Your task to perform on an android device: Open the Play Movies app and select the watchlist tab. Image 0: 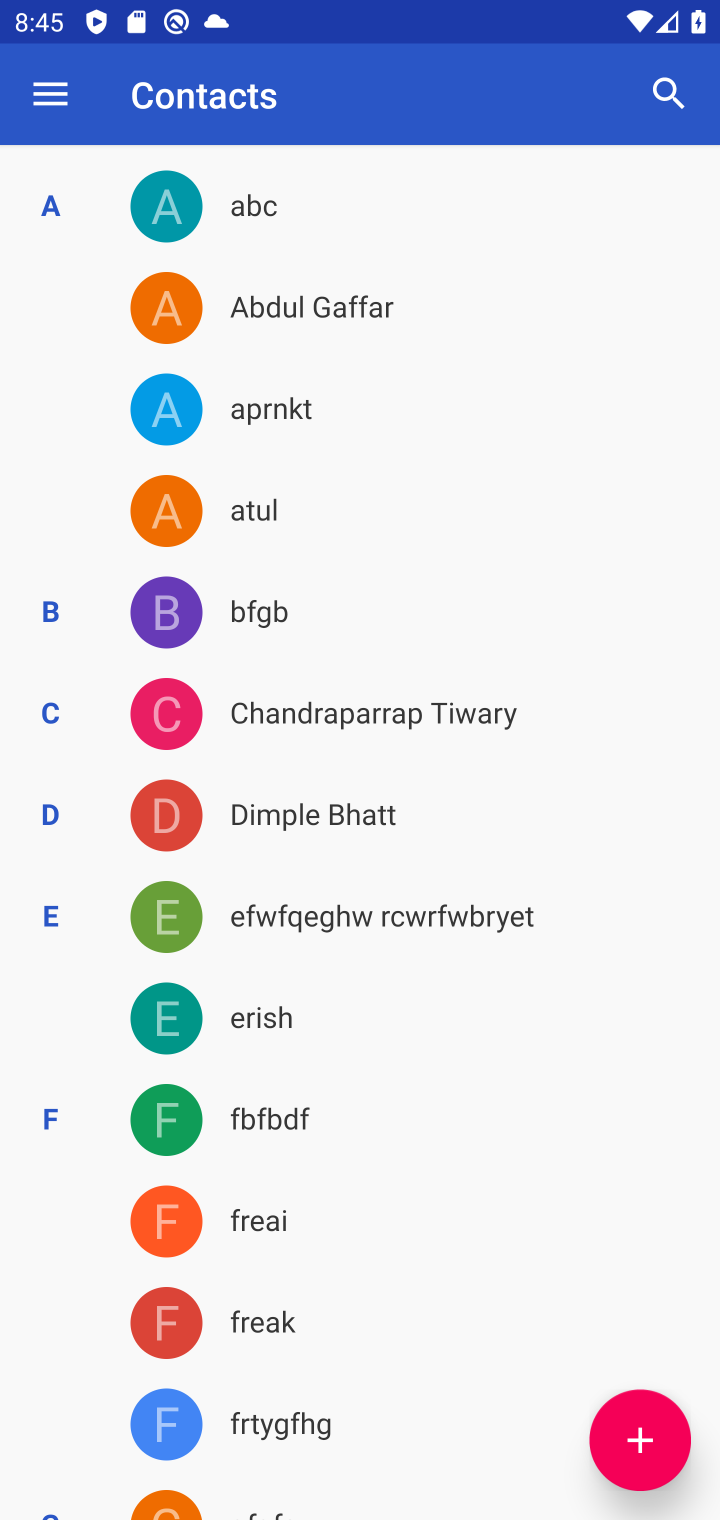
Step 0: press home button
Your task to perform on an android device: Open the Play Movies app and select the watchlist tab. Image 1: 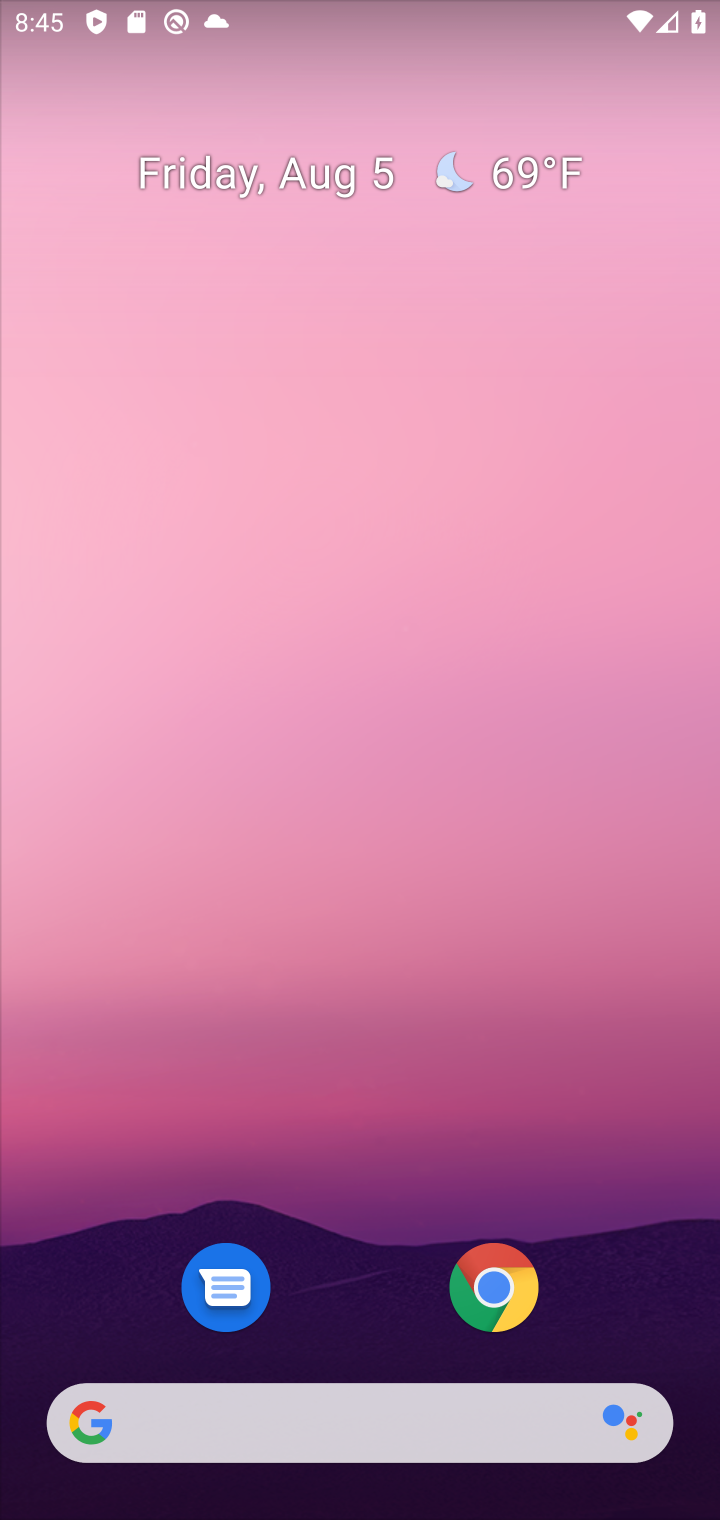
Step 1: drag from (331, 1344) to (260, 61)
Your task to perform on an android device: Open the Play Movies app and select the watchlist tab. Image 2: 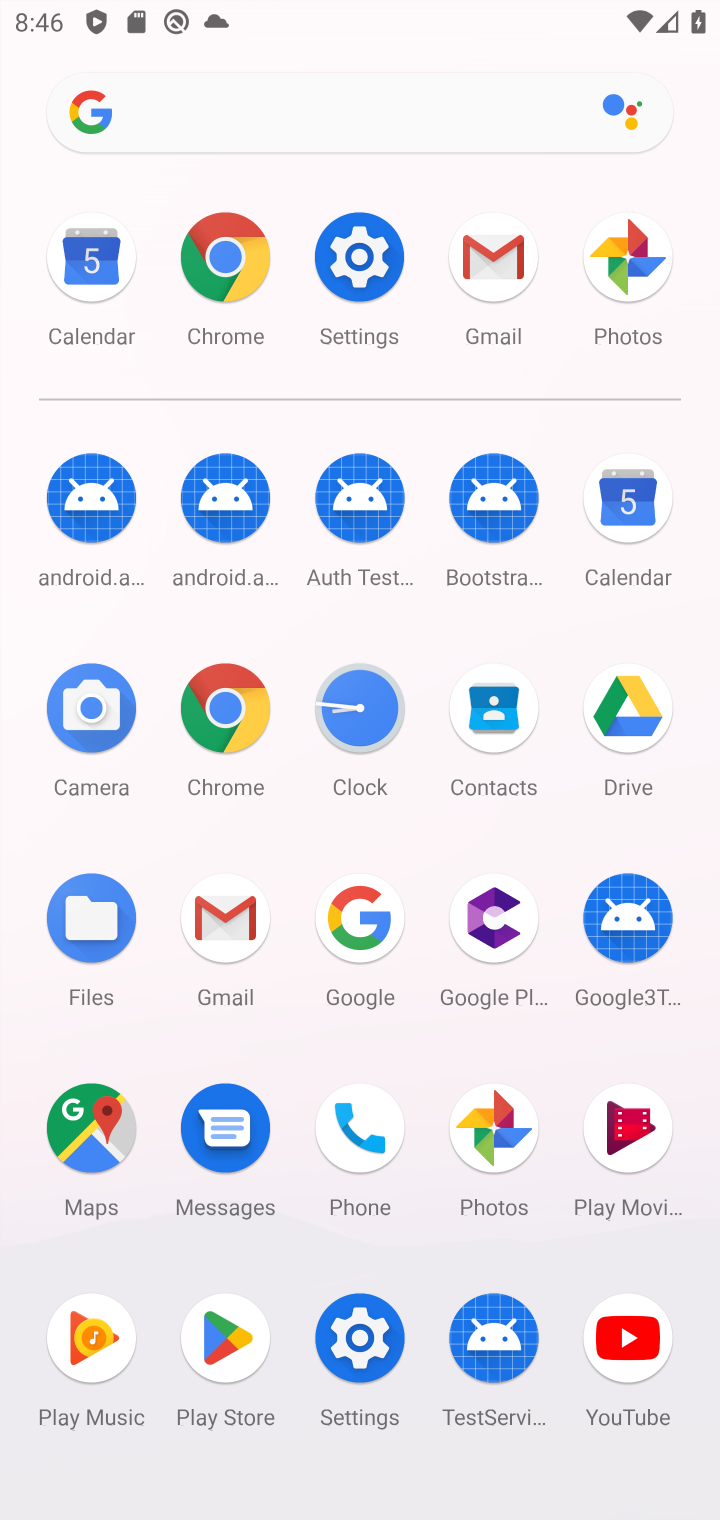
Step 2: click (624, 1132)
Your task to perform on an android device: Open the Play Movies app and select the watchlist tab. Image 3: 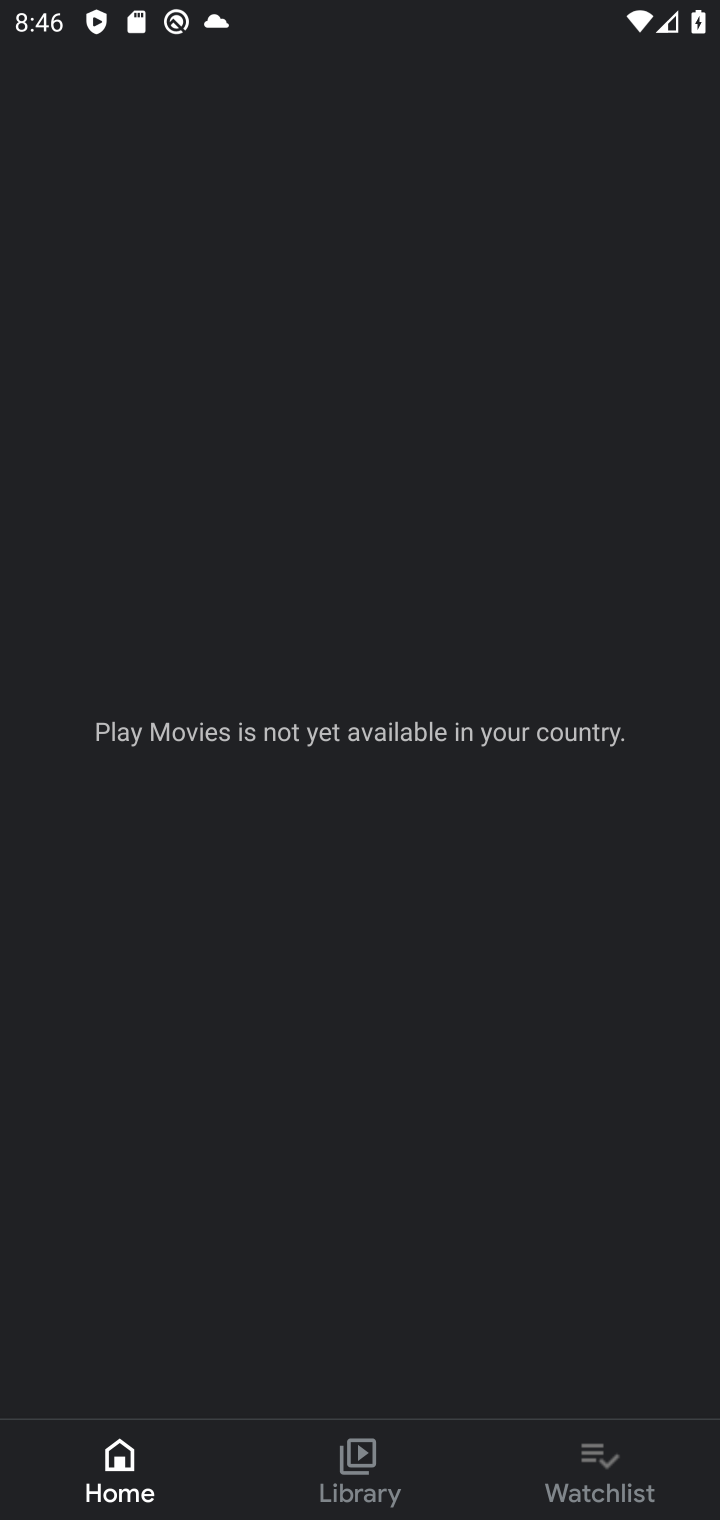
Step 3: click (597, 1482)
Your task to perform on an android device: Open the Play Movies app and select the watchlist tab. Image 4: 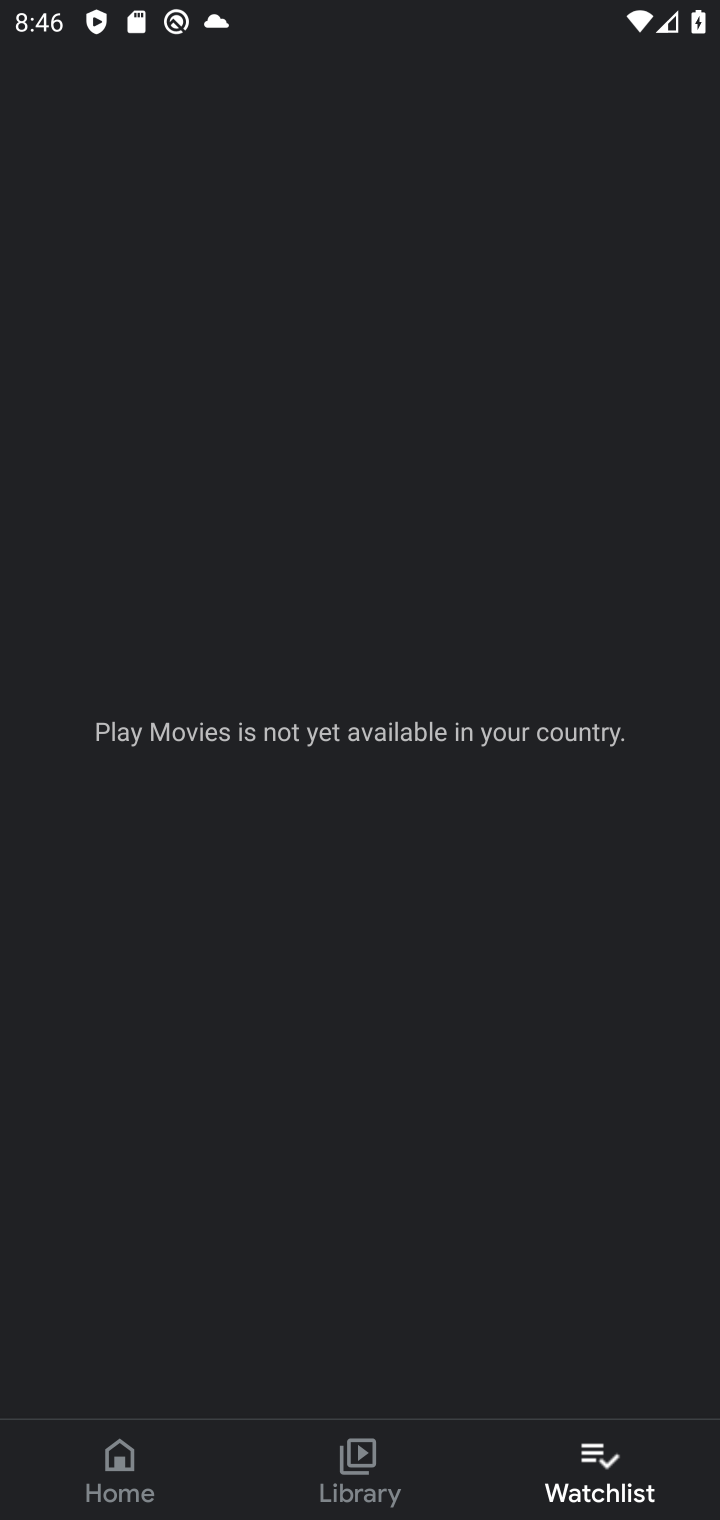
Step 4: task complete